Your task to perform on an android device: Open network settings Image 0: 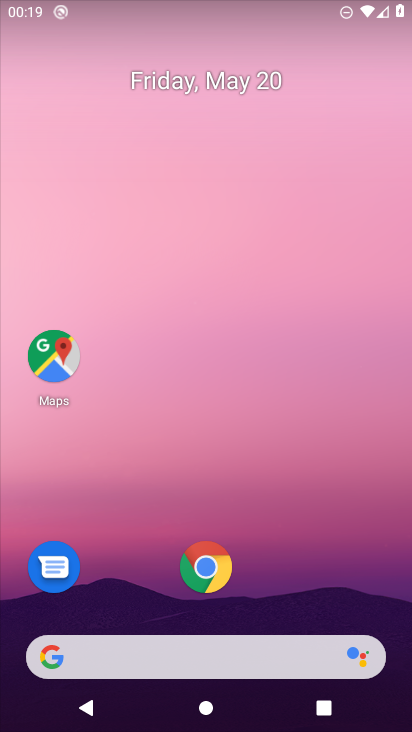
Step 0: drag from (272, 610) to (258, 64)
Your task to perform on an android device: Open network settings Image 1: 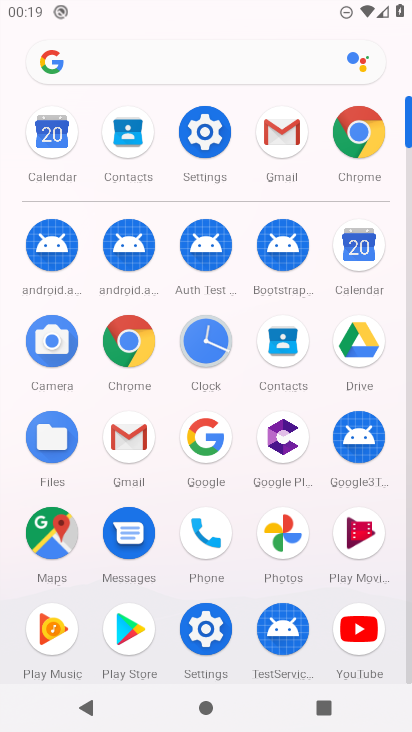
Step 1: click (199, 121)
Your task to perform on an android device: Open network settings Image 2: 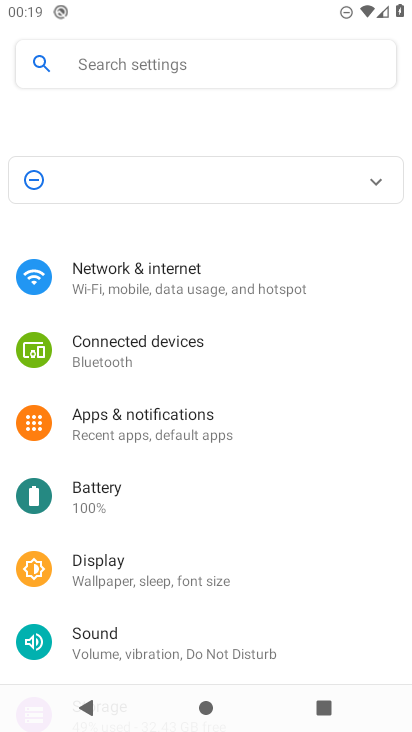
Step 2: click (194, 193)
Your task to perform on an android device: Open network settings Image 3: 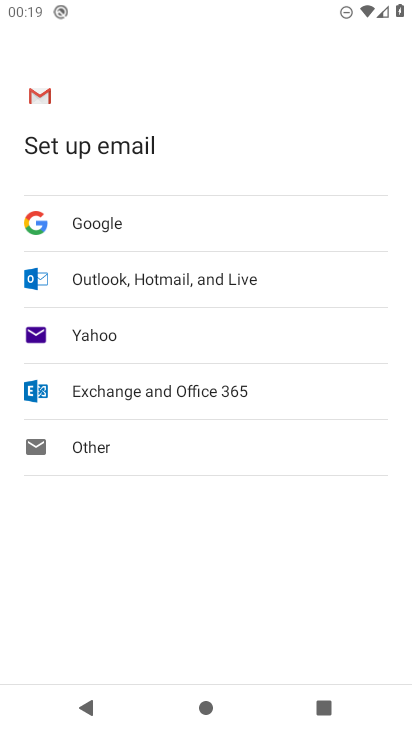
Step 3: press back button
Your task to perform on an android device: Open network settings Image 4: 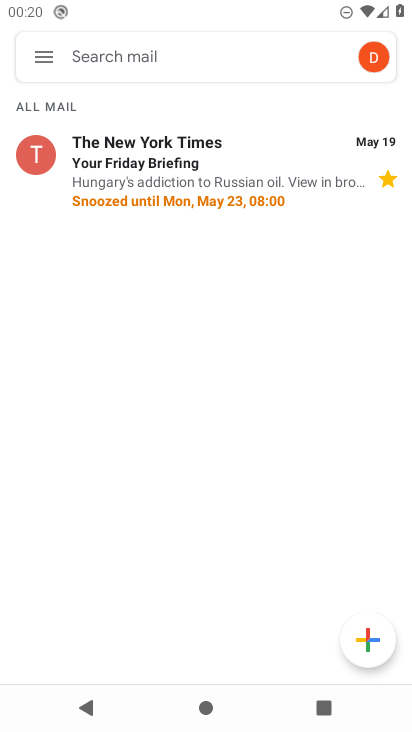
Step 4: press home button
Your task to perform on an android device: Open network settings Image 5: 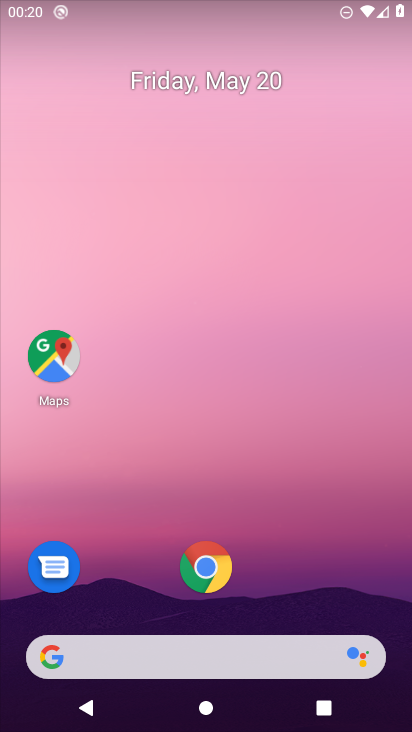
Step 5: drag from (250, 613) to (263, 2)
Your task to perform on an android device: Open network settings Image 6: 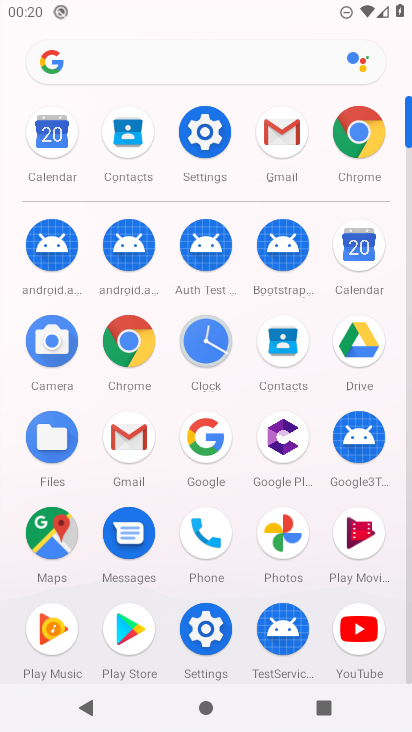
Step 6: click (202, 133)
Your task to perform on an android device: Open network settings Image 7: 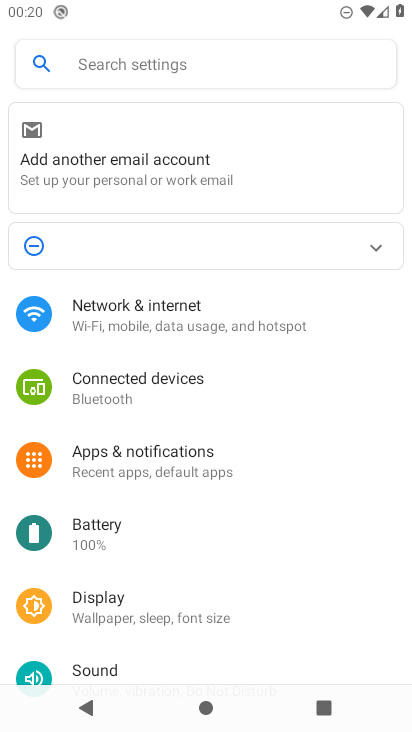
Step 7: click (210, 303)
Your task to perform on an android device: Open network settings Image 8: 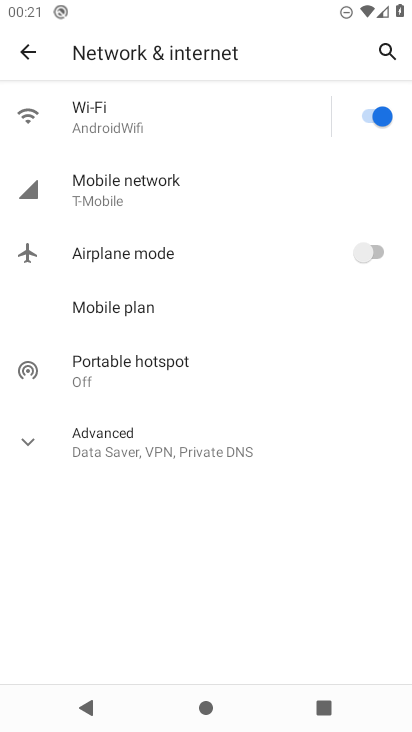
Step 8: click (120, 440)
Your task to perform on an android device: Open network settings Image 9: 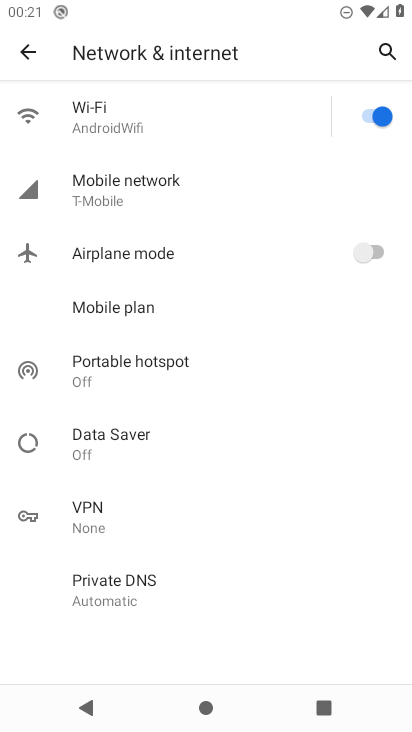
Step 9: task complete